Your task to perform on an android device: toggle sleep mode Image 0: 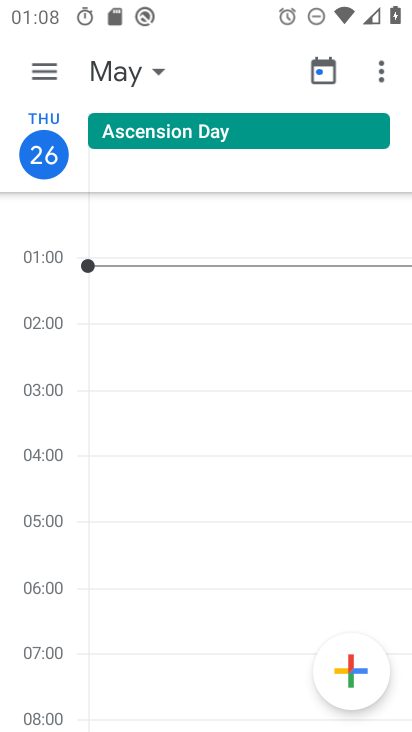
Step 0: press home button
Your task to perform on an android device: toggle sleep mode Image 1: 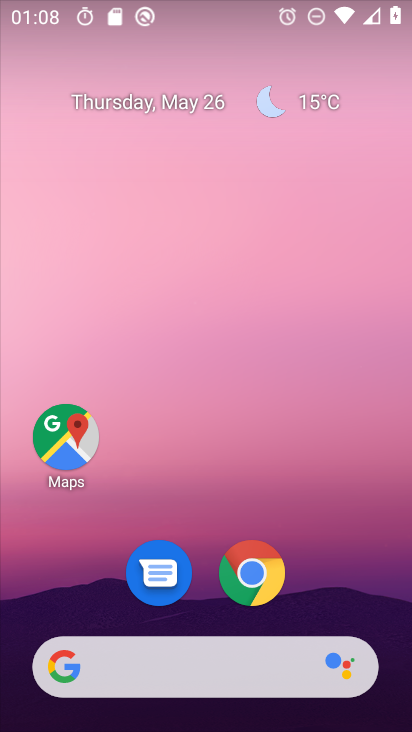
Step 1: drag from (366, 616) to (210, 7)
Your task to perform on an android device: toggle sleep mode Image 2: 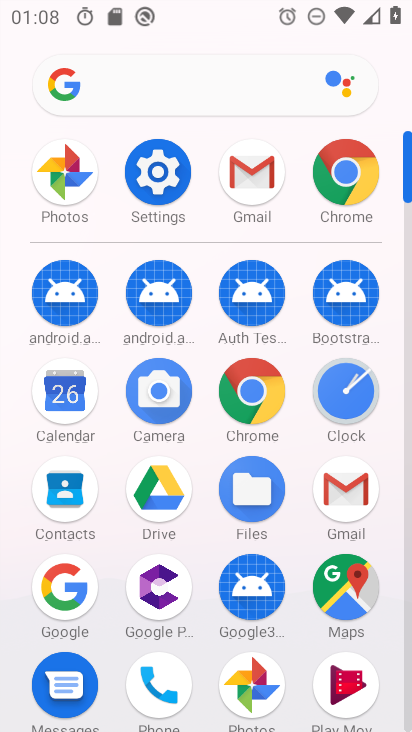
Step 2: click (146, 180)
Your task to perform on an android device: toggle sleep mode Image 3: 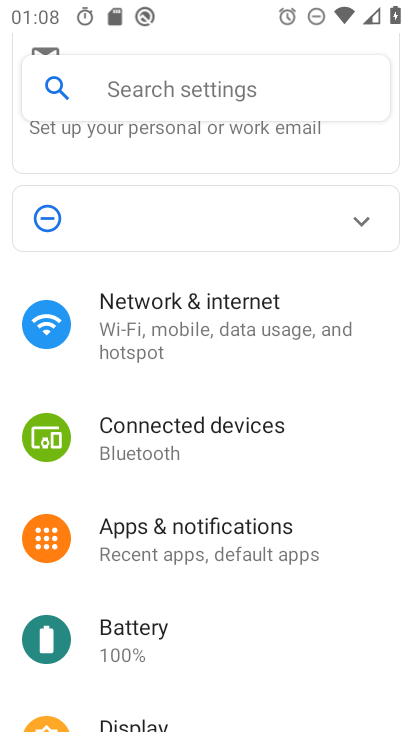
Step 3: drag from (241, 569) to (217, 227)
Your task to perform on an android device: toggle sleep mode Image 4: 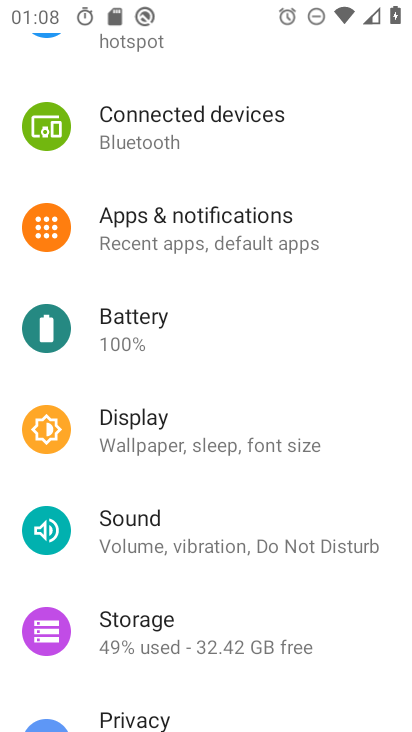
Step 4: click (136, 436)
Your task to perform on an android device: toggle sleep mode Image 5: 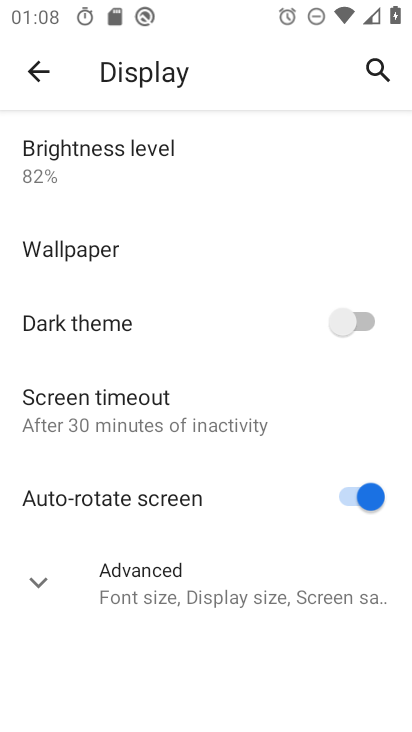
Step 5: click (33, 604)
Your task to perform on an android device: toggle sleep mode Image 6: 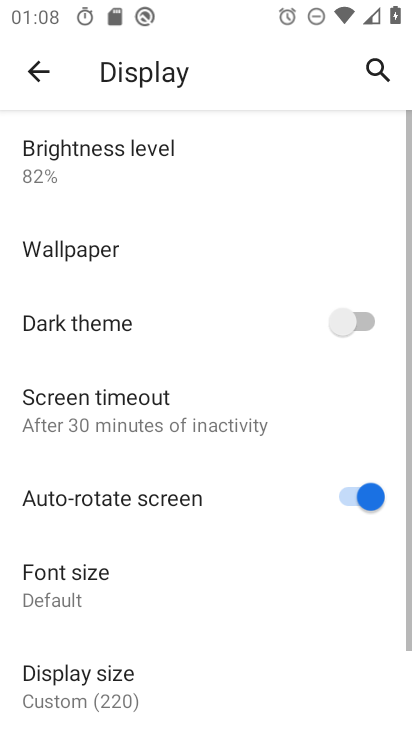
Step 6: task complete